Your task to perform on an android device: turn notification dots off Image 0: 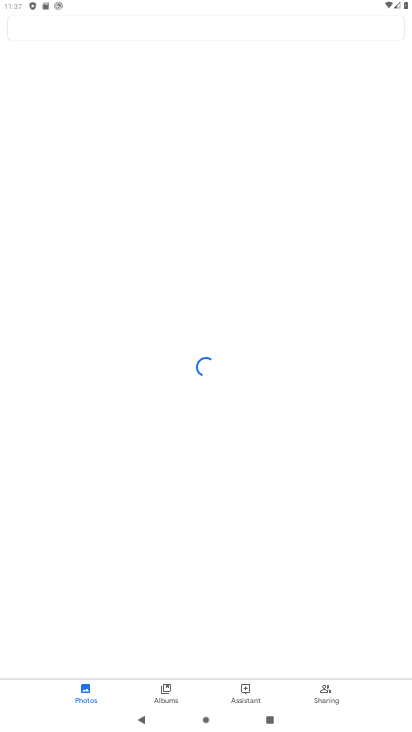
Step 0: press home button
Your task to perform on an android device: turn notification dots off Image 1: 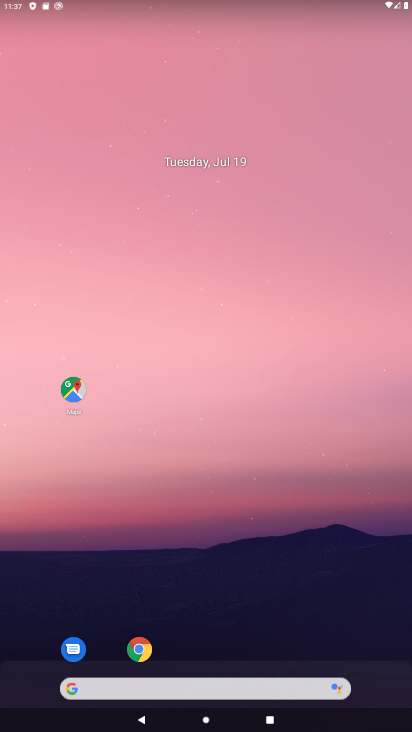
Step 1: drag from (217, 548) to (217, 240)
Your task to perform on an android device: turn notification dots off Image 2: 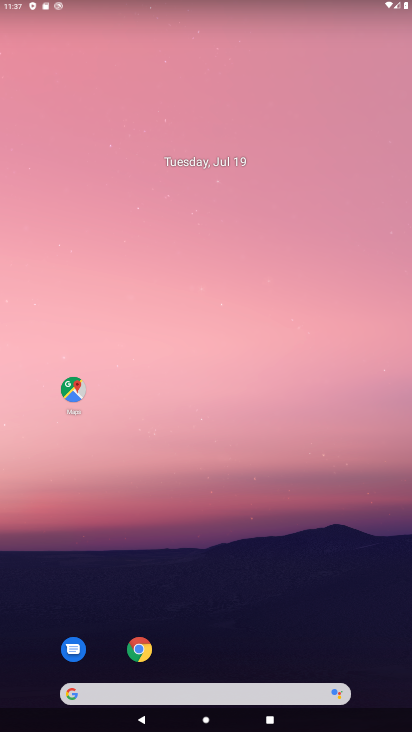
Step 2: drag from (231, 725) to (219, 255)
Your task to perform on an android device: turn notification dots off Image 3: 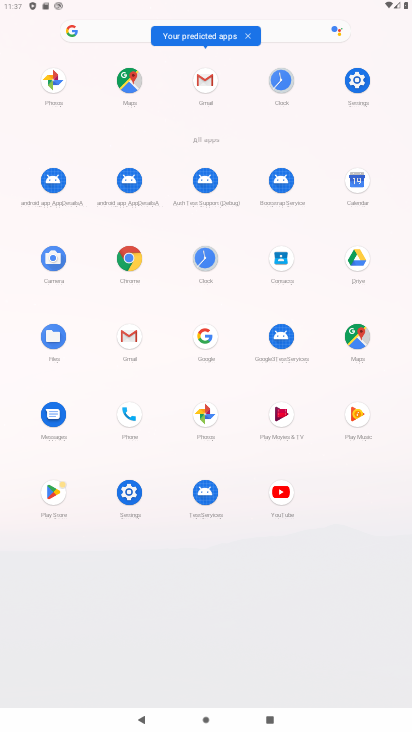
Step 3: click (363, 77)
Your task to perform on an android device: turn notification dots off Image 4: 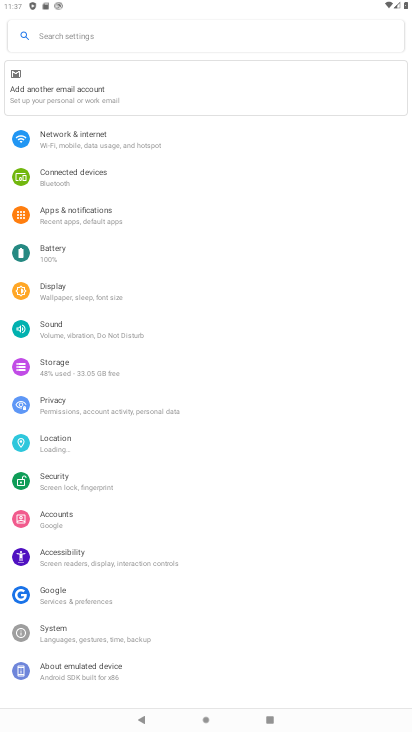
Step 4: click (69, 209)
Your task to perform on an android device: turn notification dots off Image 5: 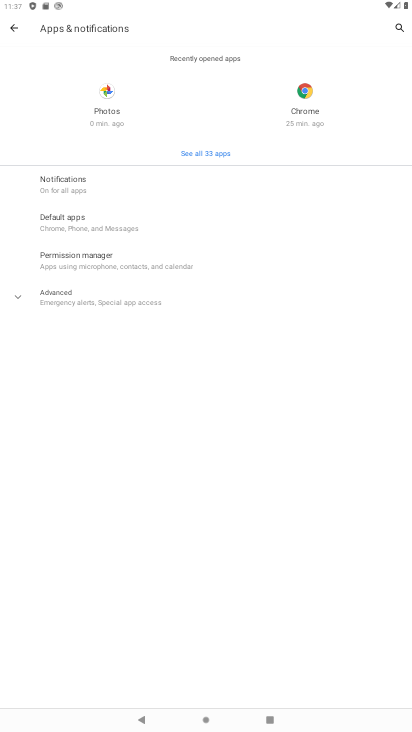
Step 5: click (58, 180)
Your task to perform on an android device: turn notification dots off Image 6: 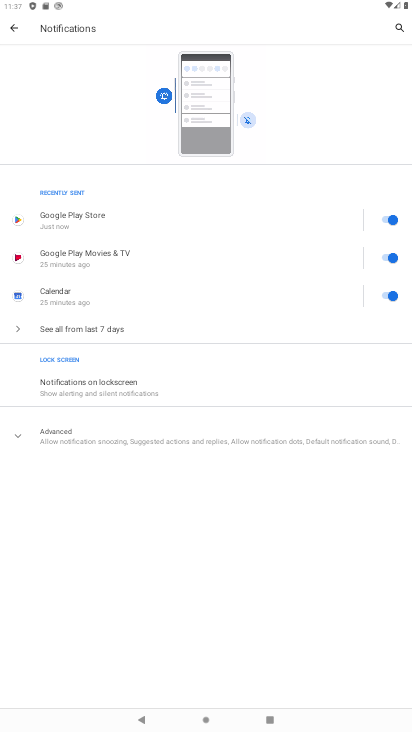
Step 6: click (123, 439)
Your task to perform on an android device: turn notification dots off Image 7: 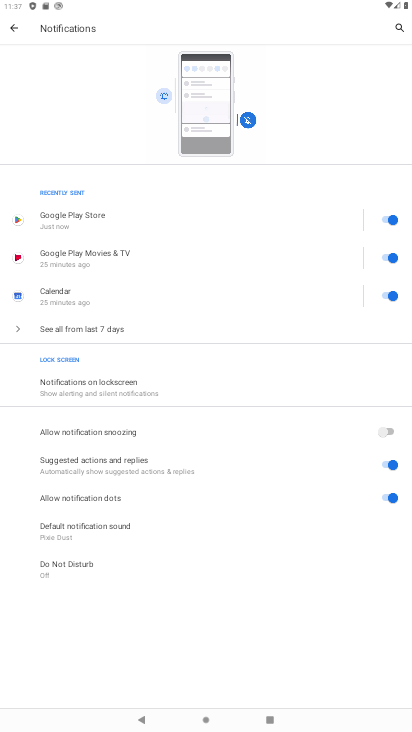
Step 7: click (388, 499)
Your task to perform on an android device: turn notification dots off Image 8: 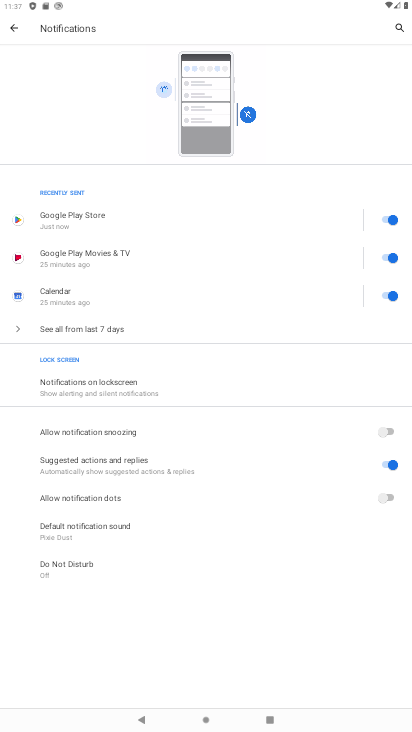
Step 8: task complete